Your task to perform on an android device: Turn off the flashlight Image 0: 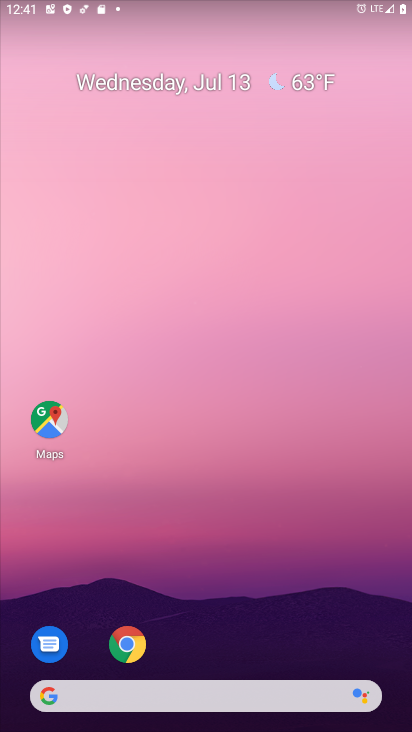
Step 0: drag from (197, 689) to (260, 307)
Your task to perform on an android device: Turn off the flashlight Image 1: 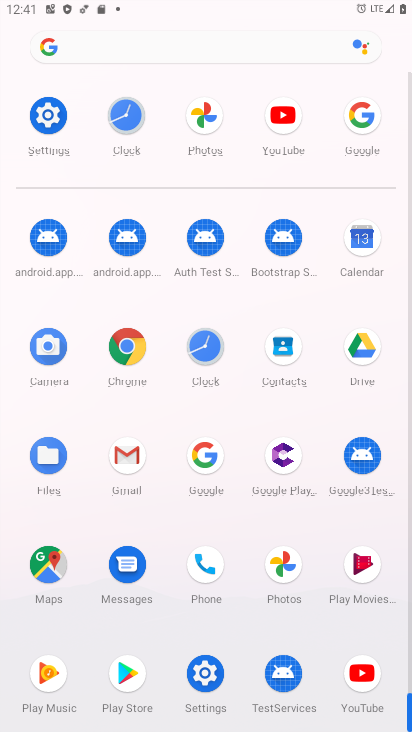
Step 1: click (48, 115)
Your task to perform on an android device: Turn off the flashlight Image 2: 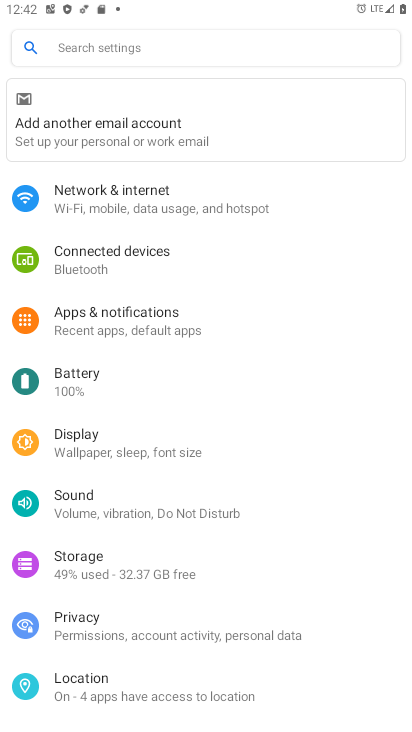
Step 2: click (84, 383)
Your task to perform on an android device: Turn off the flashlight Image 3: 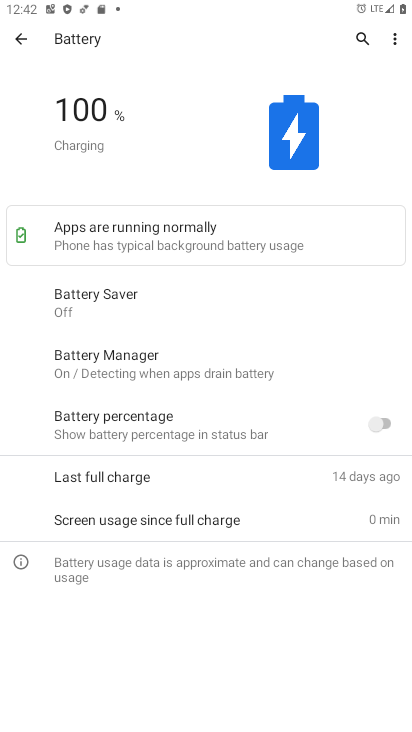
Step 3: press back button
Your task to perform on an android device: Turn off the flashlight Image 4: 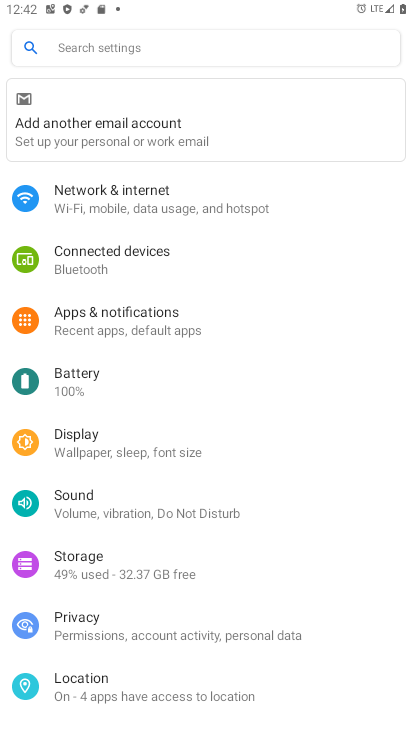
Step 4: click (127, 337)
Your task to perform on an android device: Turn off the flashlight Image 5: 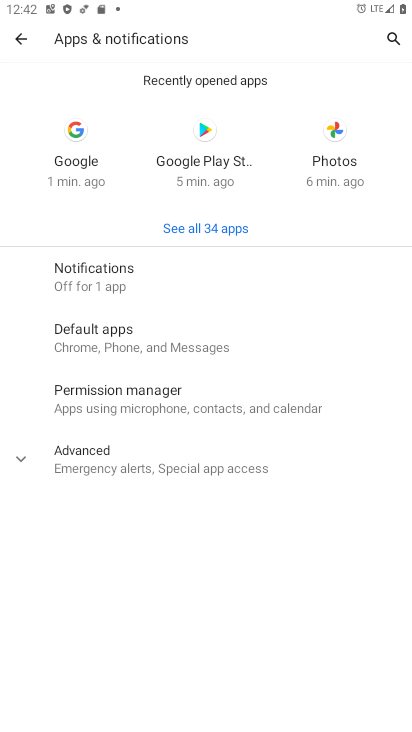
Step 5: press back button
Your task to perform on an android device: Turn off the flashlight Image 6: 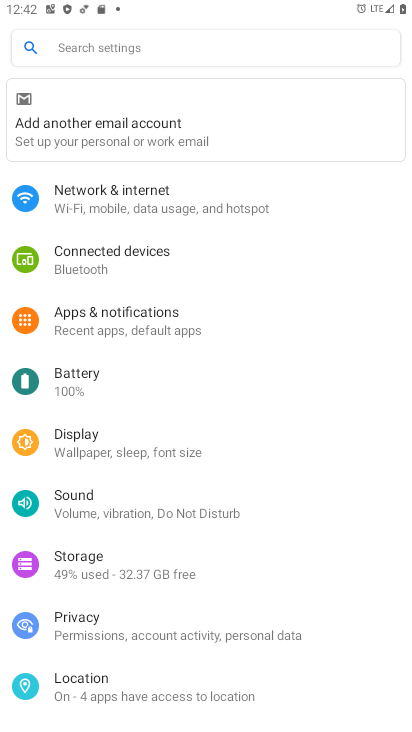
Step 6: click (102, 509)
Your task to perform on an android device: Turn off the flashlight Image 7: 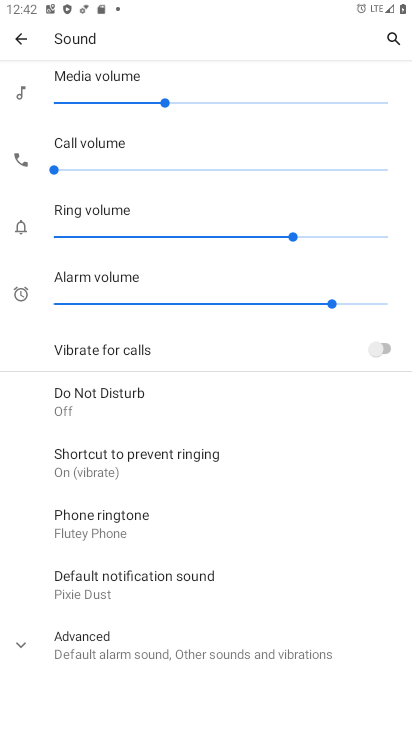
Step 7: press back button
Your task to perform on an android device: Turn off the flashlight Image 8: 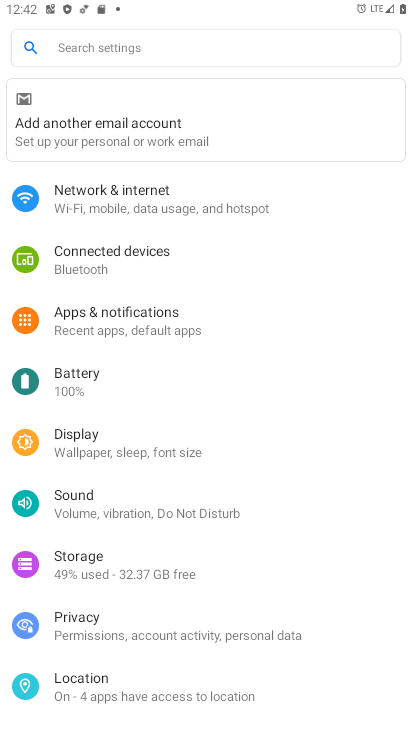
Step 8: click (146, 452)
Your task to perform on an android device: Turn off the flashlight Image 9: 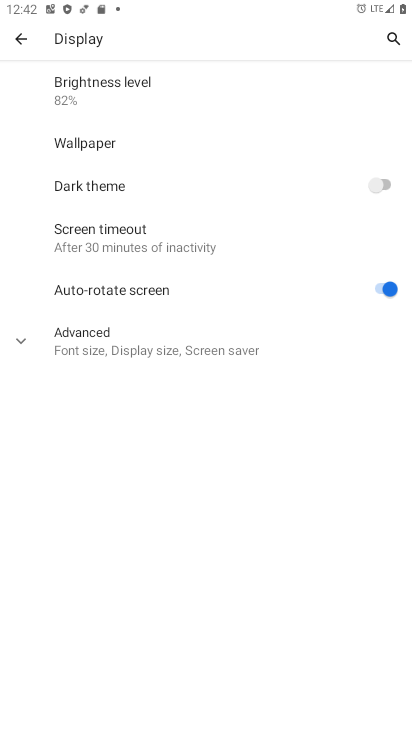
Step 9: click (137, 354)
Your task to perform on an android device: Turn off the flashlight Image 10: 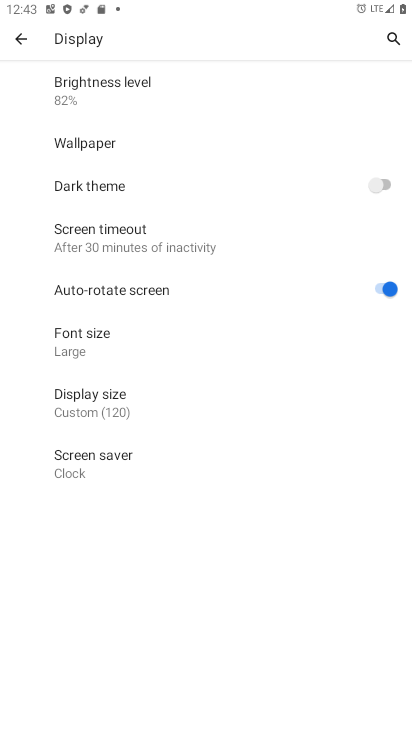
Step 10: task complete